Your task to perform on an android device: Search for vegetarian restaurants on Maps Image 0: 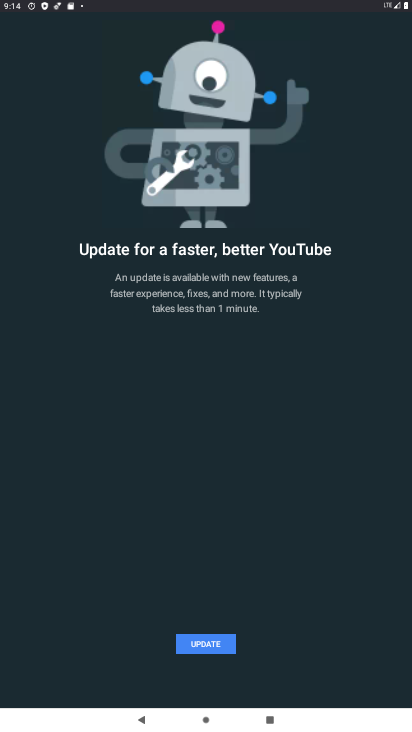
Step 0: press home button
Your task to perform on an android device: Search for vegetarian restaurants on Maps Image 1: 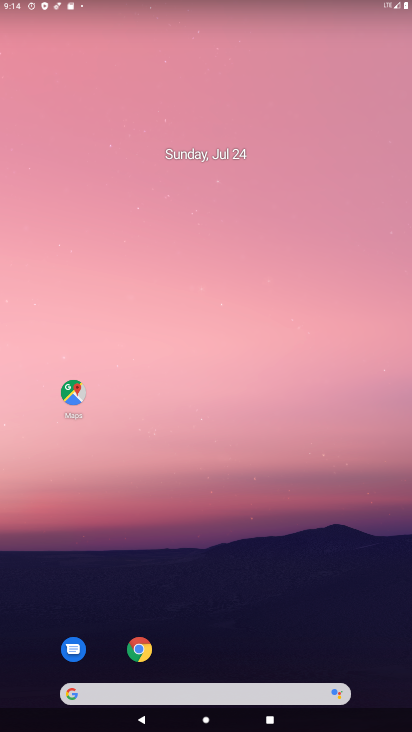
Step 1: click (71, 391)
Your task to perform on an android device: Search for vegetarian restaurants on Maps Image 2: 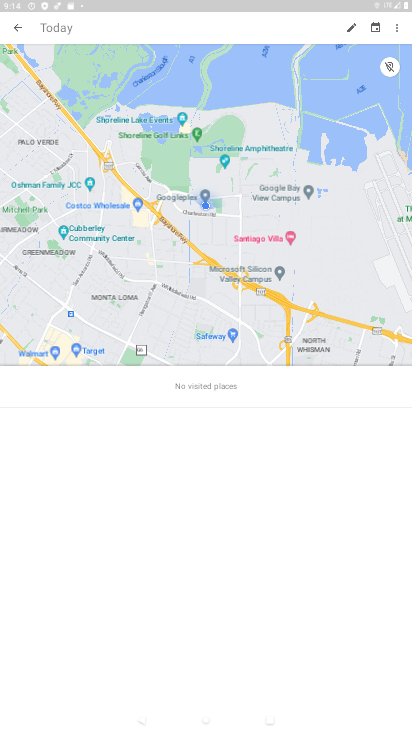
Step 2: click (67, 27)
Your task to perform on an android device: Search for vegetarian restaurants on Maps Image 3: 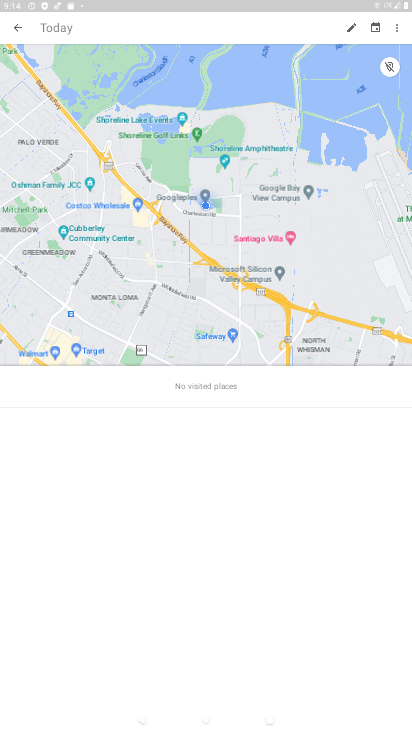
Step 3: click (12, 23)
Your task to perform on an android device: Search for vegetarian restaurants on Maps Image 4: 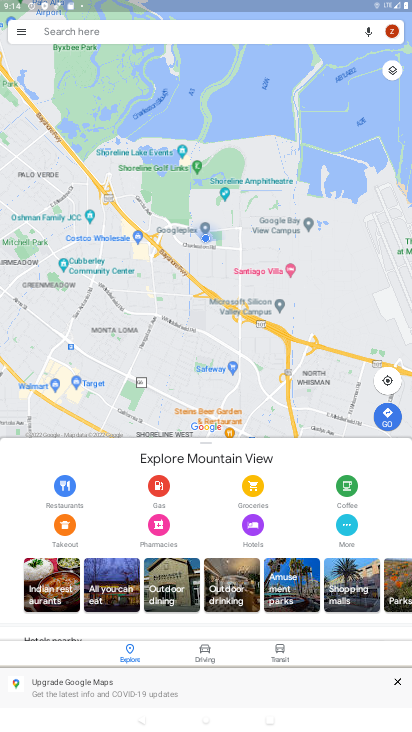
Step 4: click (44, 29)
Your task to perform on an android device: Search for vegetarian restaurants on Maps Image 5: 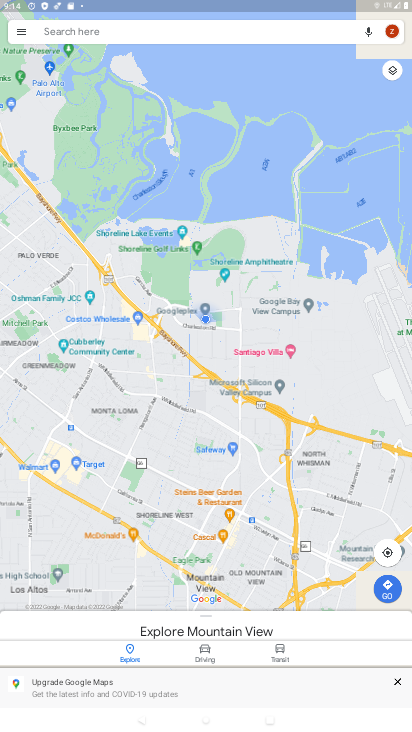
Step 5: click (62, 24)
Your task to perform on an android device: Search for vegetarian restaurants on Maps Image 6: 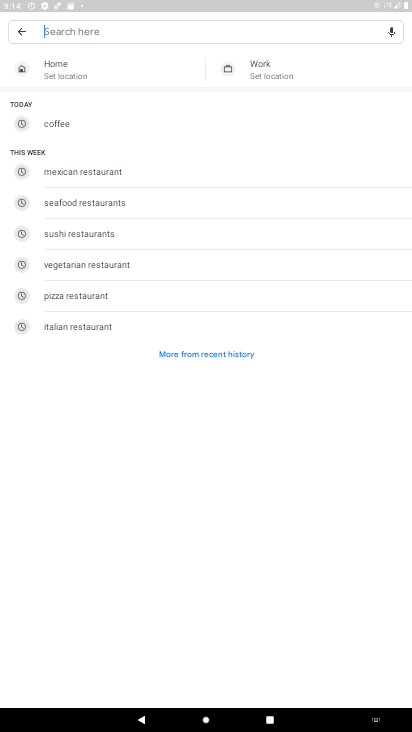
Step 6: click (89, 255)
Your task to perform on an android device: Search for vegetarian restaurants on Maps Image 7: 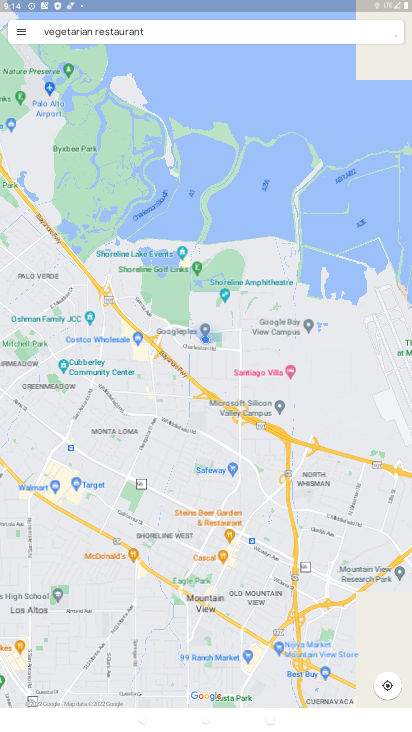
Step 7: task complete